Your task to perform on an android device: make emails show in primary in the gmail app Image 0: 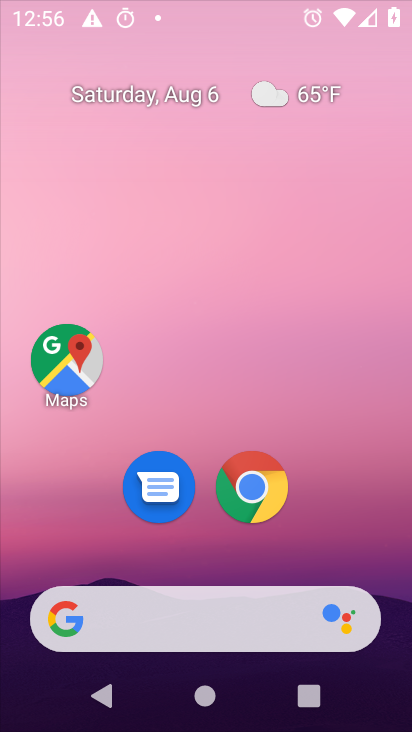
Step 0: drag from (205, 546) to (320, 9)
Your task to perform on an android device: make emails show in primary in the gmail app Image 1: 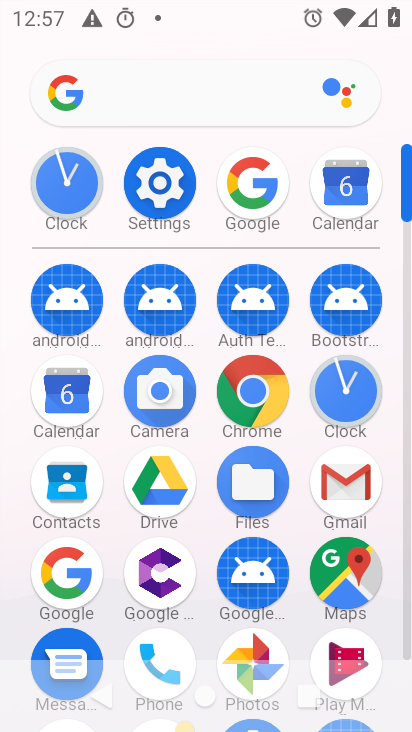
Step 1: click (338, 474)
Your task to perform on an android device: make emails show in primary in the gmail app Image 2: 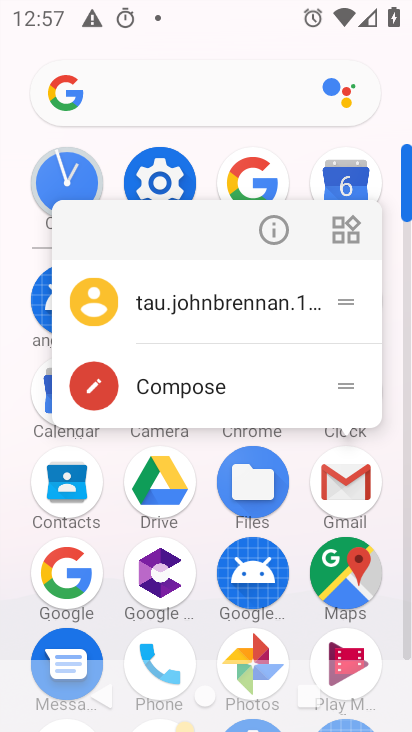
Step 2: click (343, 484)
Your task to perform on an android device: make emails show in primary in the gmail app Image 3: 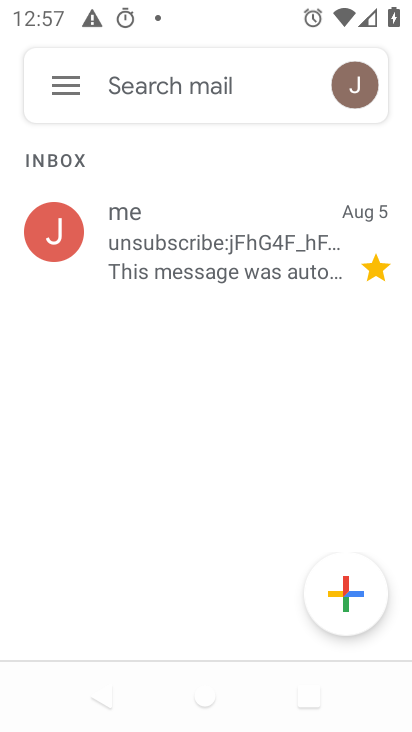
Step 3: click (66, 31)
Your task to perform on an android device: make emails show in primary in the gmail app Image 4: 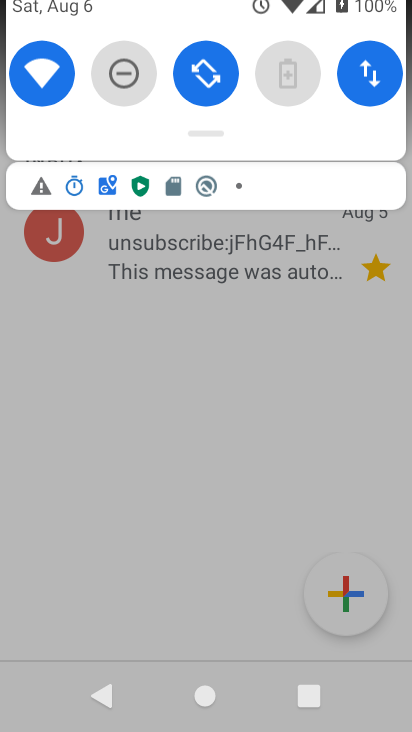
Step 4: click (68, 98)
Your task to perform on an android device: make emails show in primary in the gmail app Image 5: 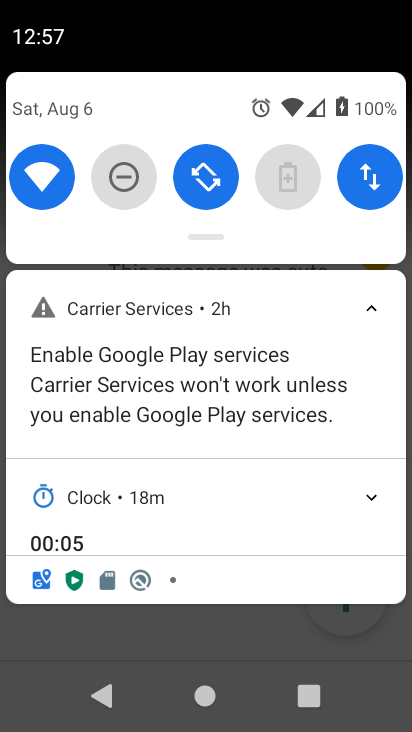
Step 5: click (146, 630)
Your task to perform on an android device: make emails show in primary in the gmail app Image 6: 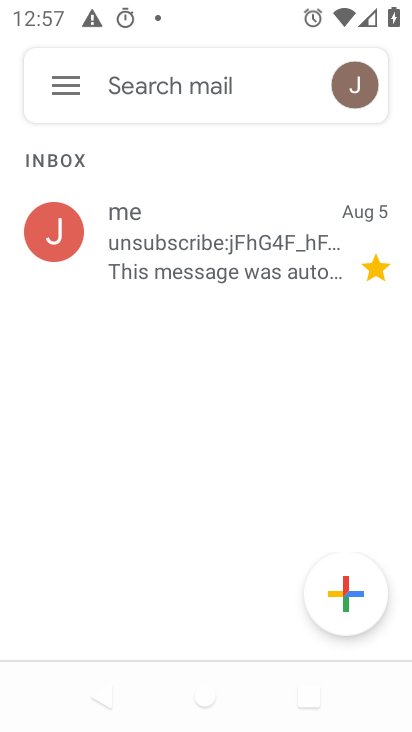
Step 6: click (65, 90)
Your task to perform on an android device: make emails show in primary in the gmail app Image 7: 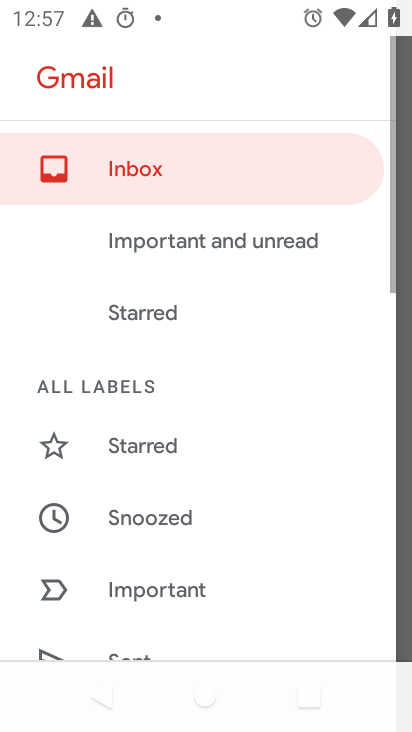
Step 7: drag from (199, 519) to (306, 32)
Your task to perform on an android device: make emails show in primary in the gmail app Image 8: 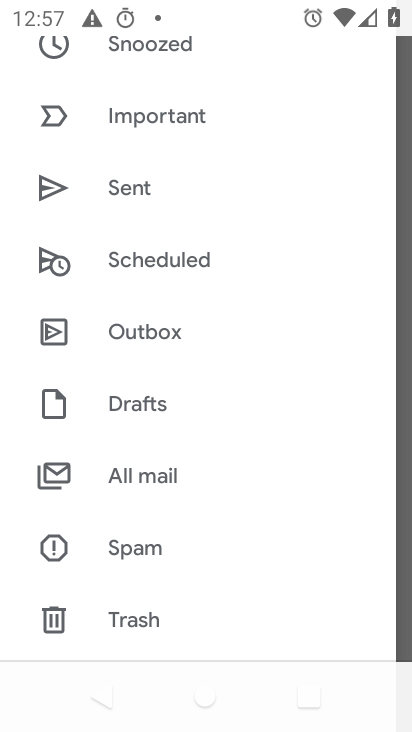
Step 8: drag from (251, 575) to (275, 28)
Your task to perform on an android device: make emails show in primary in the gmail app Image 9: 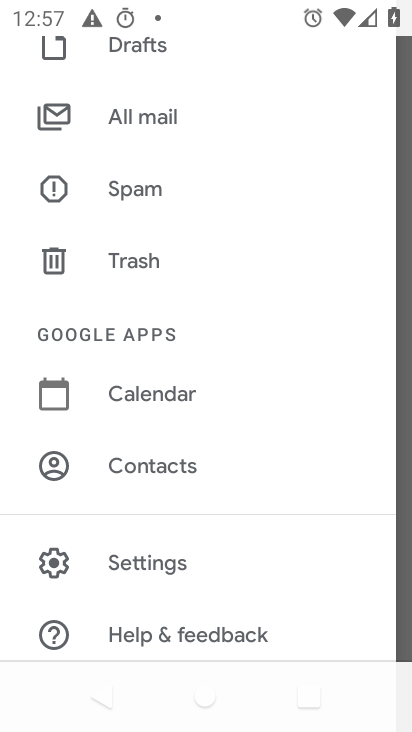
Step 9: click (142, 550)
Your task to perform on an android device: make emails show in primary in the gmail app Image 10: 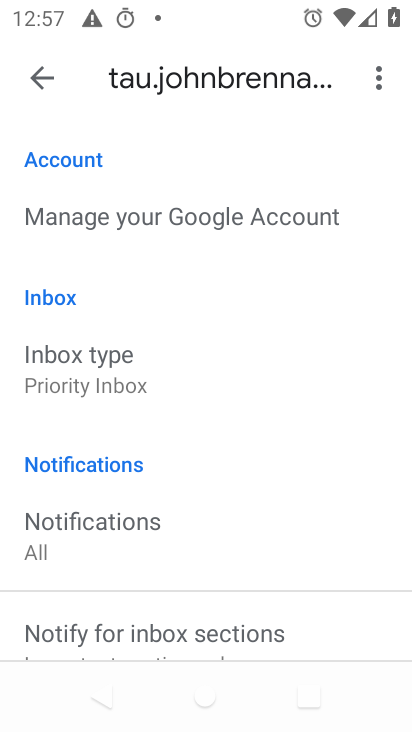
Step 10: task complete